Your task to perform on an android device: Find coffee shops on Maps Image 0: 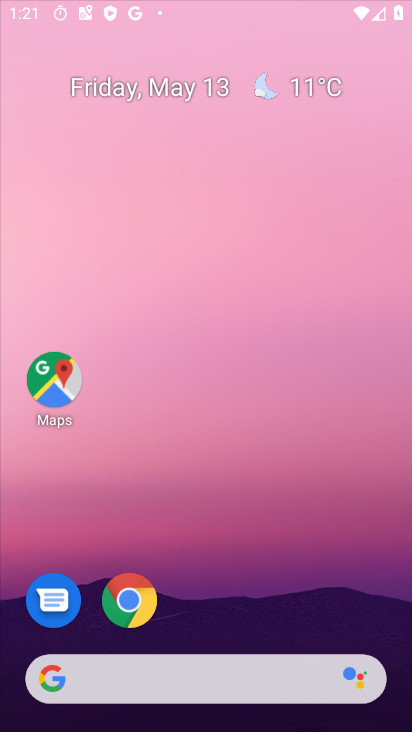
Step 0: click (273, 92)
Your task to perform on an android device: Find coffee shops on Maps Image 1: 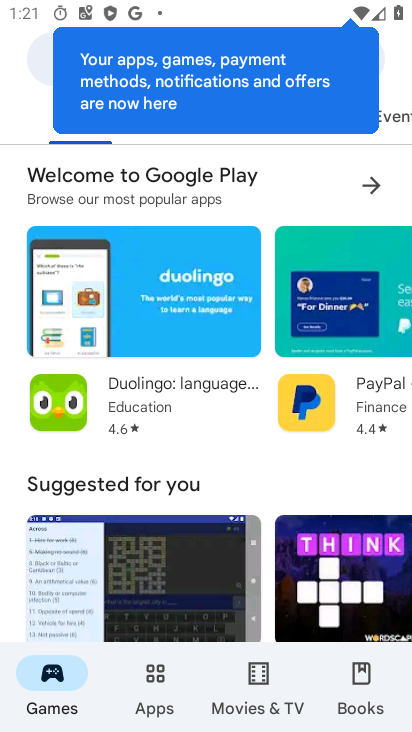
Step 1: press home button
Your task to perform on an android device: Find coffee shops on Maps Image 2: 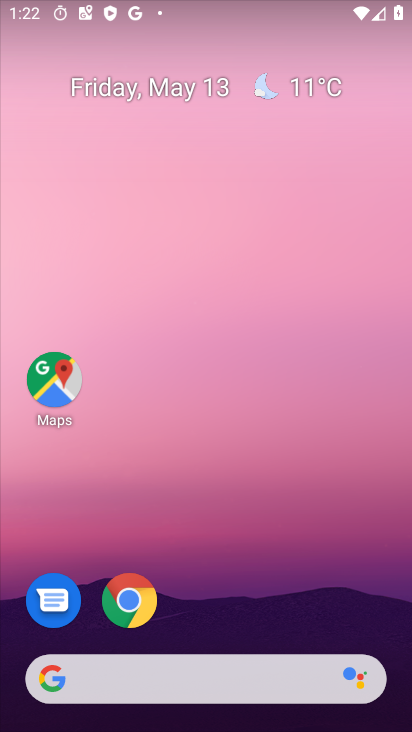
Step 2: click (55, 366)
Your task to perform on an android device: Find coffee shops on Maps Image 3: 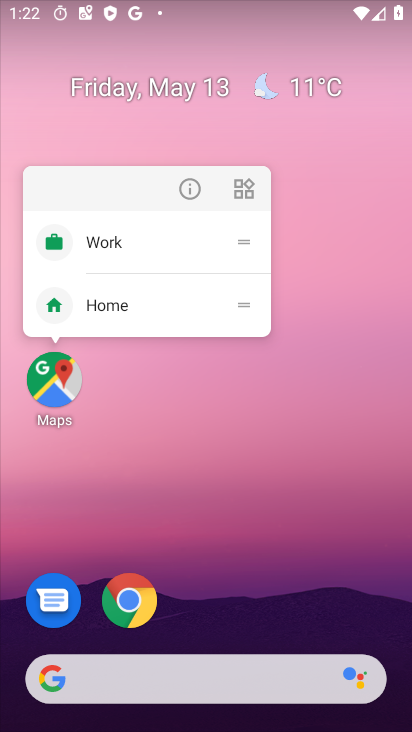
Step 3: click (192, 189)
Your task to perform on an android device: Find coffee shops on Maps Image 4: 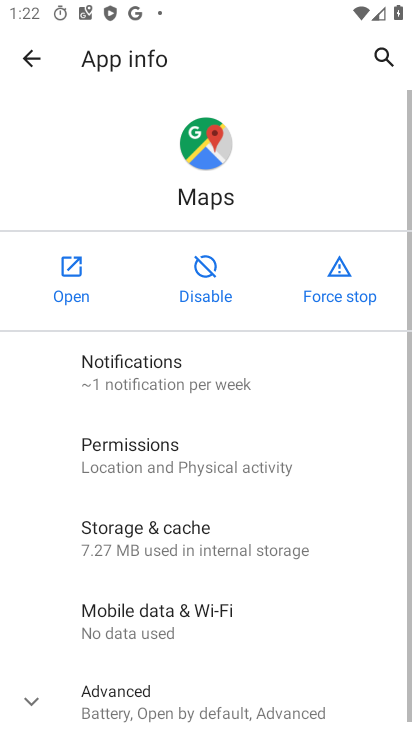
Step 4: click (58, 272)
Your task to perform on an android device: Find coffee shops on Maps Image 5: 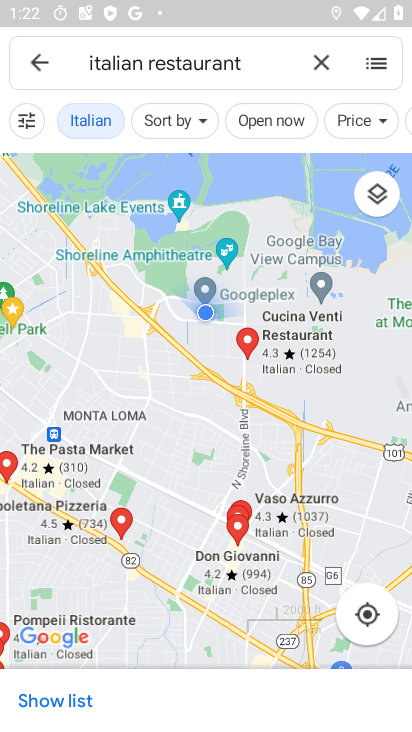
Step 5: click (322, 66)
Your task to perform on an android device: Find coffee shops on Maps Image 6: 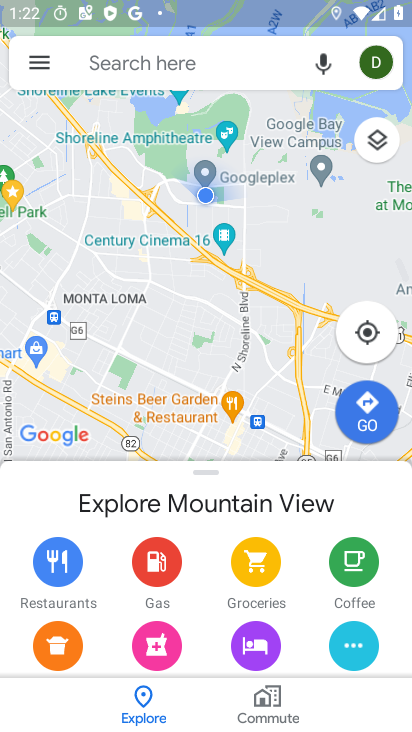
Step 6: click (123, 69)
Your task to perform on an android device: Find coffee shops on Maps Image 7: 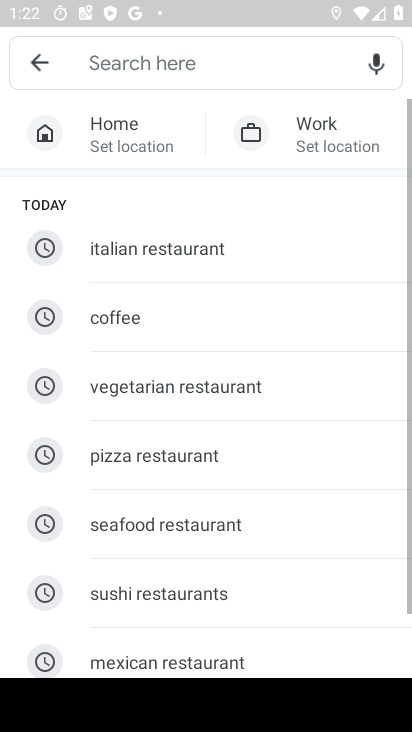
Step 7: click (135, 331)
Your task to perform on an android device: Find coffee shops on Maps Image 8: 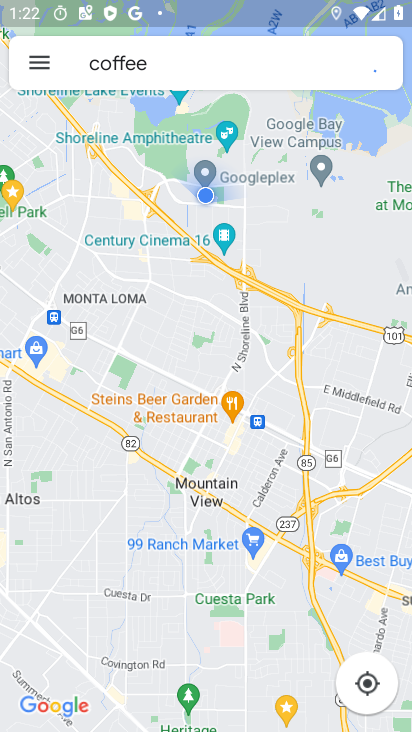
Step 8: task complete